Your task to perform on an android device: turn pop-ups on in chrome Image 0: 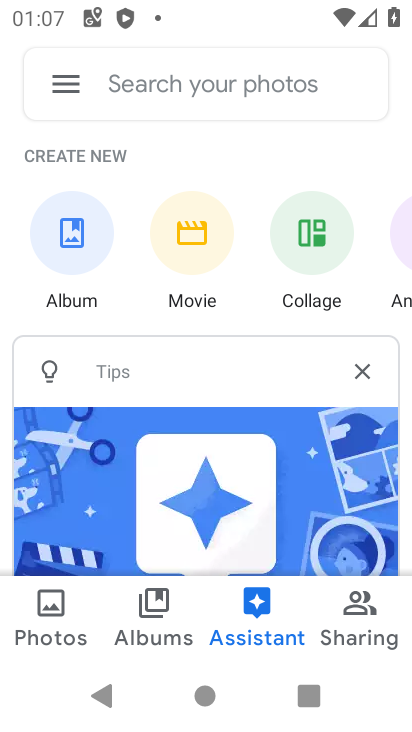
Step 0: press home button
Your task to perform on an android device: turn pop-ups on in chrome Image 1: 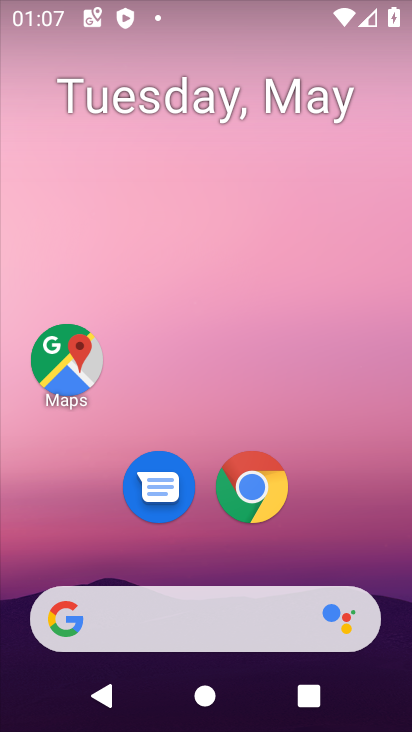
Step 1: click (254, 486)
Your task to perform on an android device: turn pop-ups on in chrome Image 2: 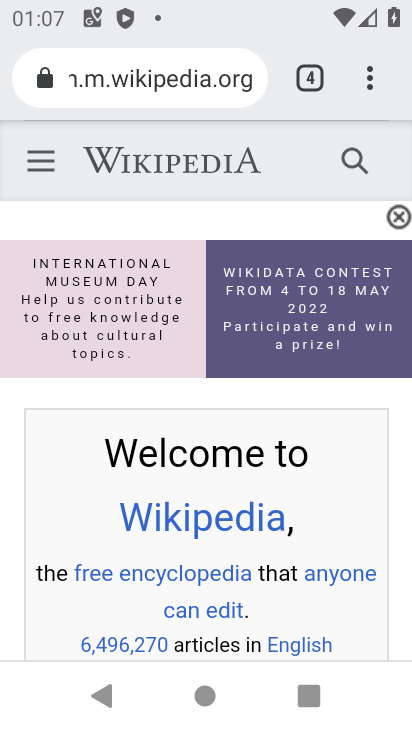
Step 2: click (372, 85)
Your task to perform on an android device: turn pop-ups on in chrome Image 3: 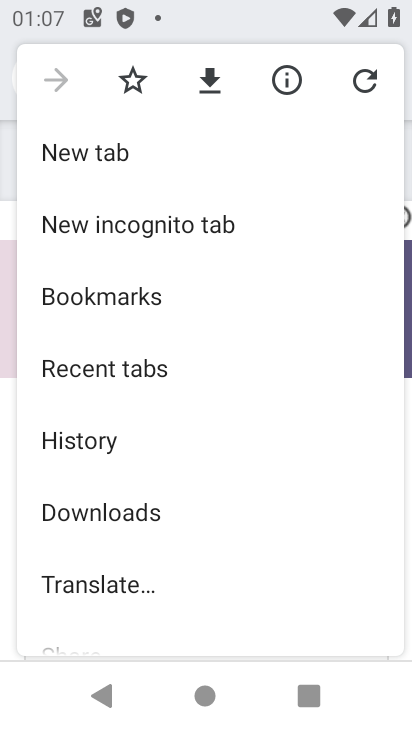
Step 3: click (408, 576)
Your task to perform on an android device: turn pop-ups on in chrome Image 4: 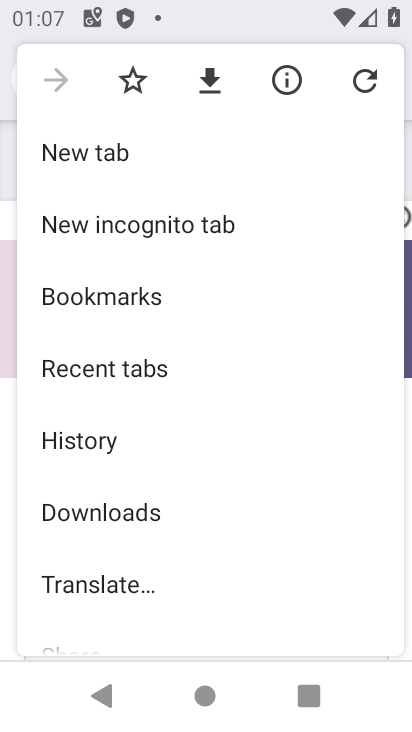
Step 4: click (275, 86)
Your task to perform on an android device: turn pop-ups on in chrome Image 5: 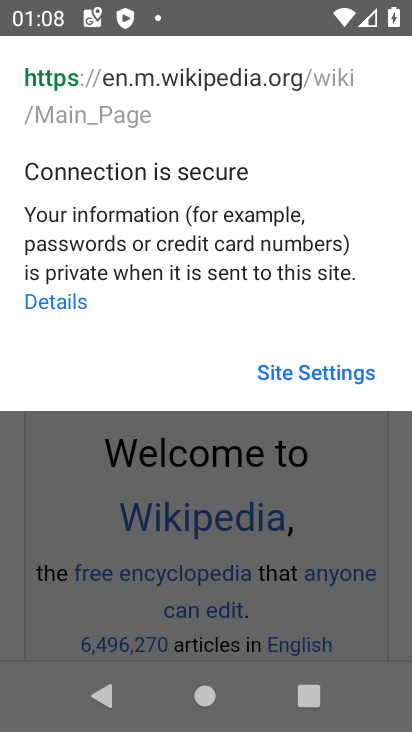
Step 5: press back button
Your task to perform on an android device: turn pop-ups on in chrome Image 6: 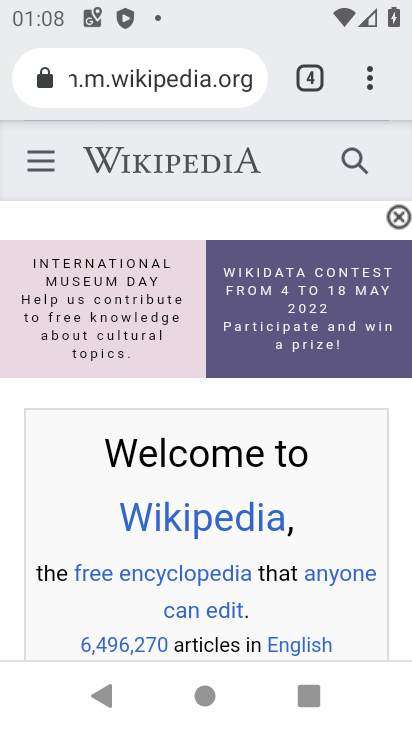
Step 6: click (315, 74)
Your task to perform on an android device: turn pop-ups on in chrome Image 7: 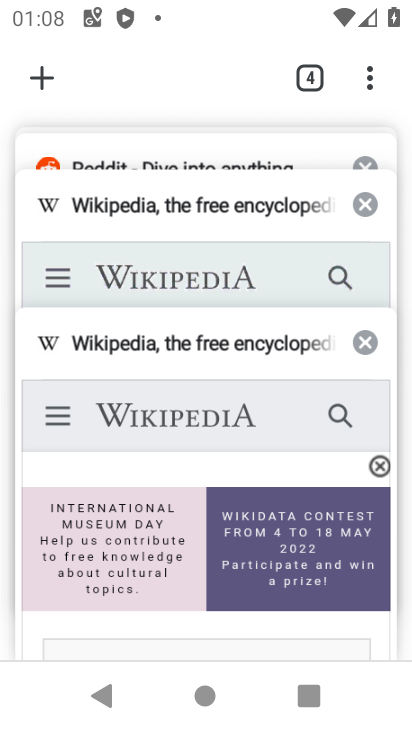
Step 7: click (367, 340)
Your task to perform on an android device: turn pop-ups on in chrome Image 8: 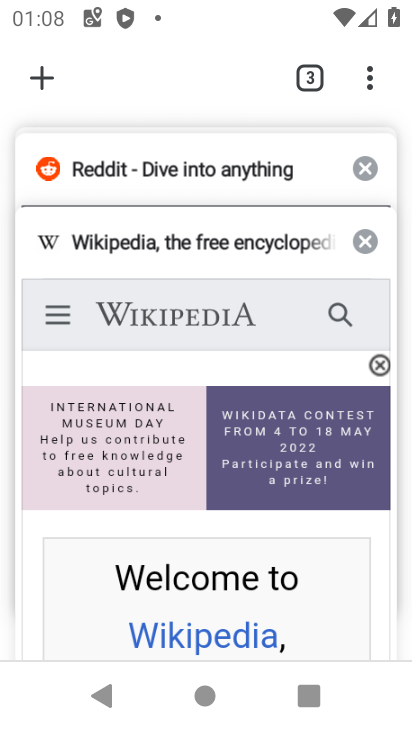
Step 8: click (367, 237)
Your task to perform on an android device: turn pop-ups on in chrome Image 9: 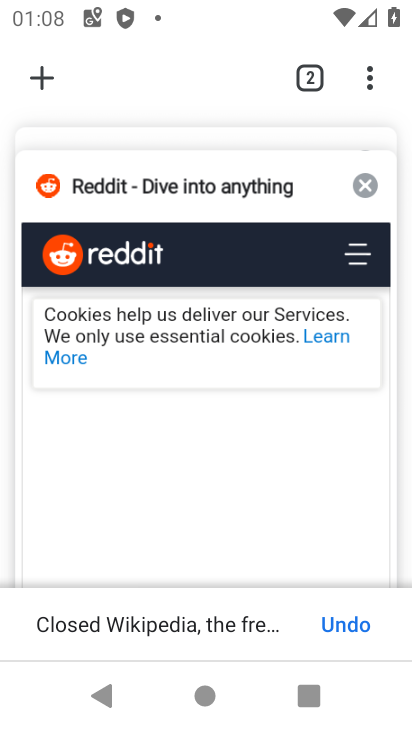
Step 9: click (366, 188)
Your task to perform on an android device: turn pop-ups on in chrome Image 10: 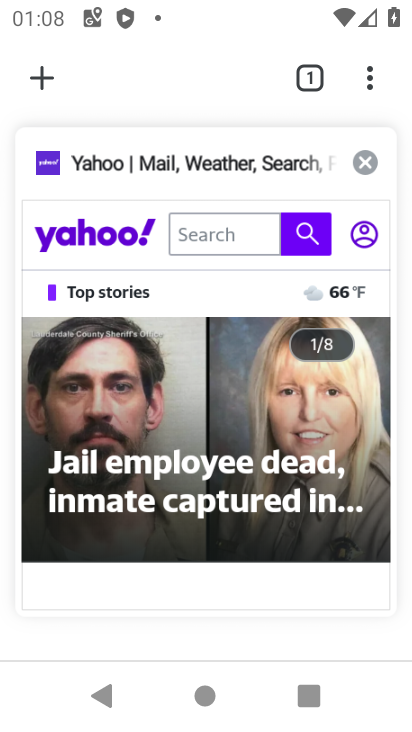
Step 10: click (365, 157)
Your task to perform on an android device: turn pop-ups on in chrome Image 11: 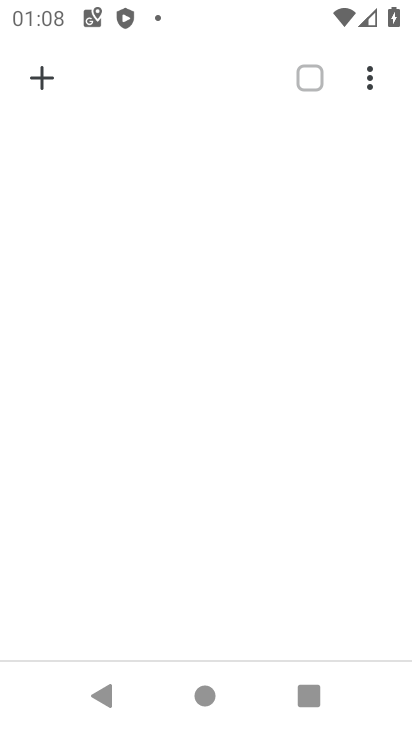
Step 11: click (363, 70)
Your task to perform on an android device: turn pop-ups on in chrome Image 12: 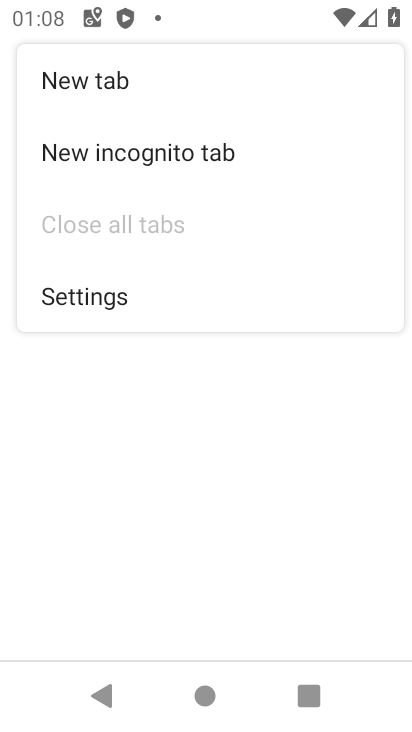
Step 12: click (215, 298)
Your task to perform on an android device: turn pop-ups on in chrome Image 13: 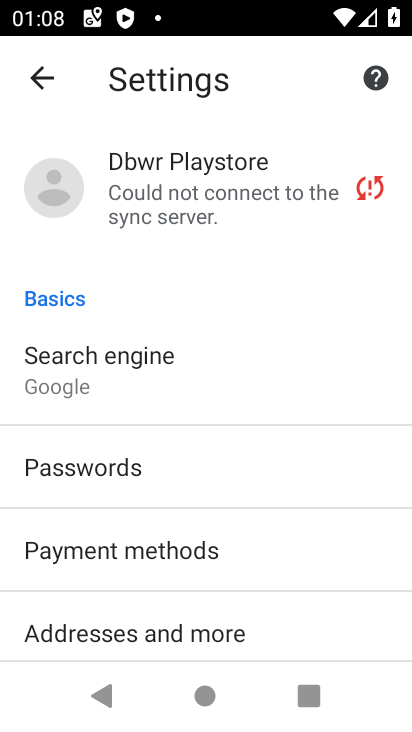
Step 13: drag from (238, 629) to (294, 339)
Your task to perform on an android device: turn pop-ups on in chrome Image 14: 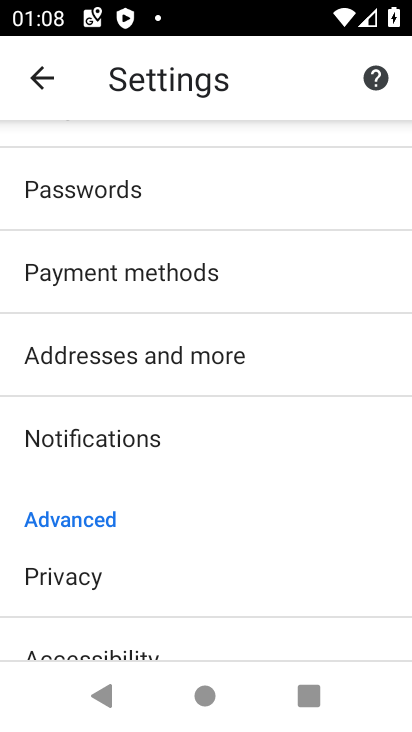
Step 14: drag from (233, 646) to (278, 207)
Your task to perform on an android device: turn pop-ups on in chrome Image 15: 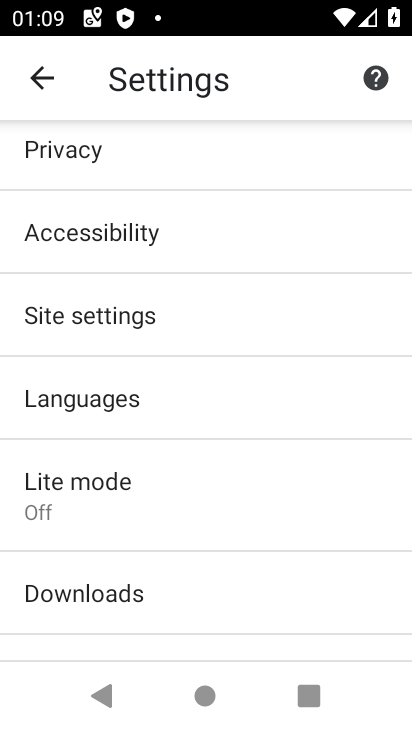
Step 15: click (194, 295)
Your task to perform on an android device: turn pop-ups on in chrome Image 16: 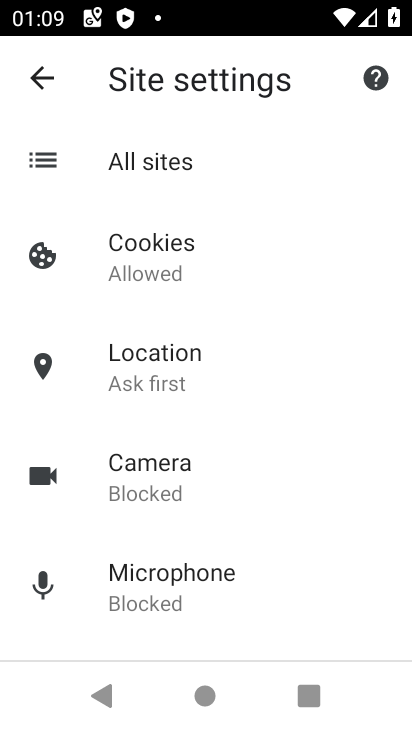
Step 16: drag from (207, 607) to (268, 262)
Your task to perform on an android device: turn pop-ups on in chrome Image 17: 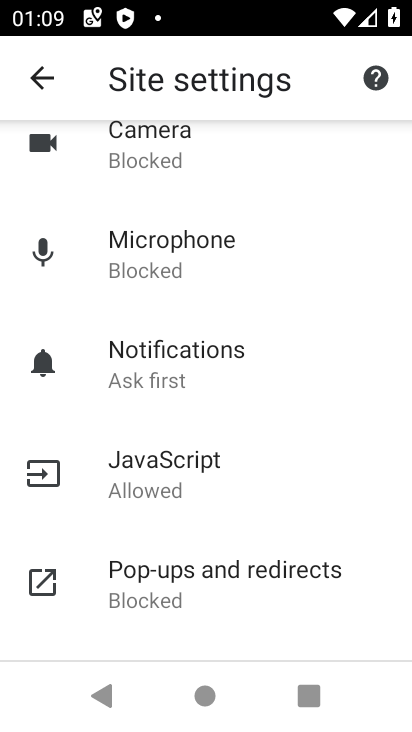
Step 17: click (189, 582)
Your task to perform on an android device: turn pop-ups on in chrome Image 18: 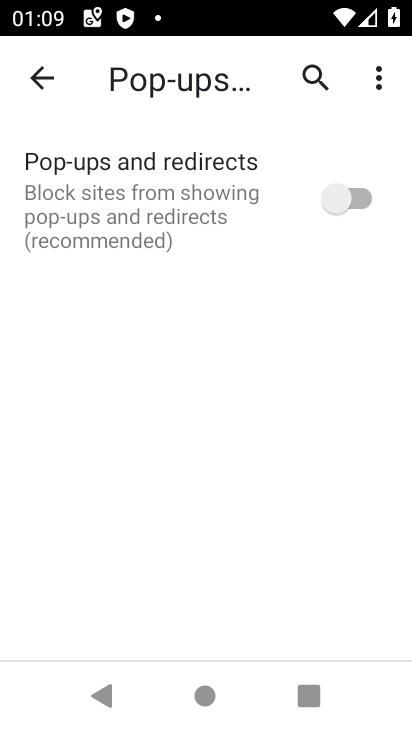
Step 18: click (330, 205)
Your task to perform on an android device: turn pop-ups on in chrome Image 19: 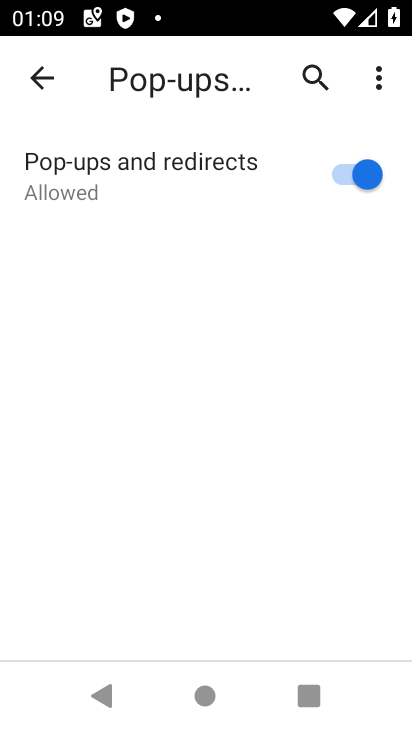
Step 19: task complete